Your task to perform on an android device: turn off javascript in the chrome app Image 0: 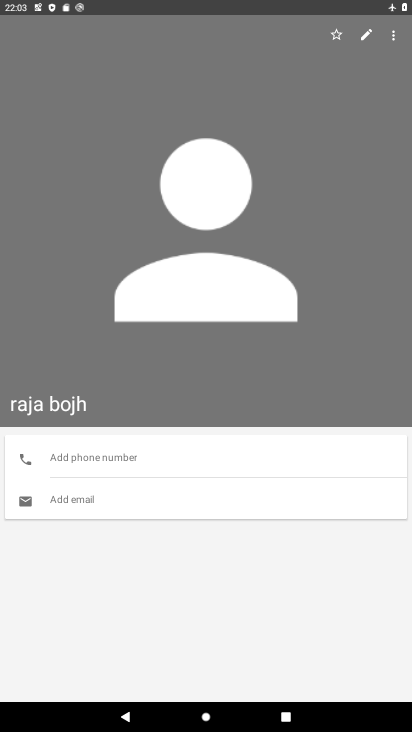
Step 0: press home button
Your task to perform on an android device: turn off javascript in the chrome app Image 1: 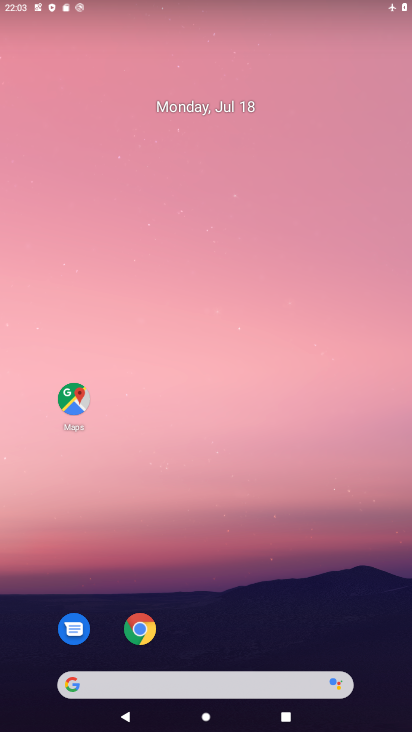
Step 1: drag from (301, 606) to (315, 86)
Your task to perform on an android device: turn off javascript in the chrome app Image 2: 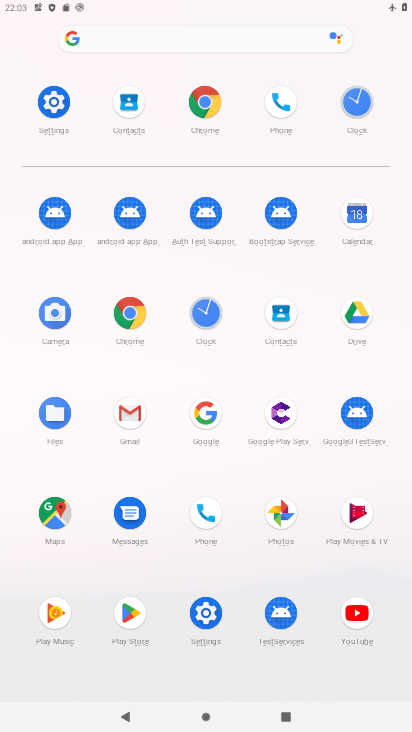
Step 2: click (205, 102)
Your task to perform on an android device: turn off javascript in the chrome app Image 3: 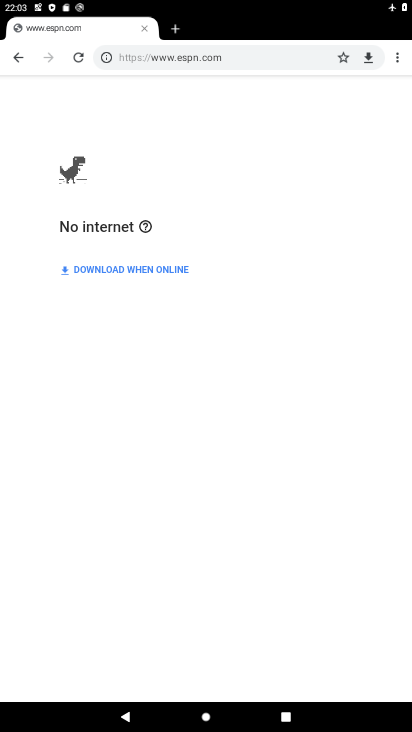
Step 3: drag from (400, 60) to (274, 396)
Your task to perform on an android device: turn off javascript in the chrome app Image 4: 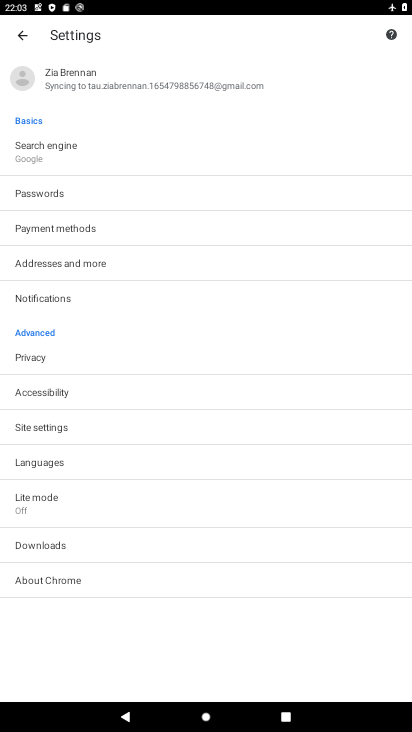
Step 4: click (104, 420)
Your task to perform on an android device: turn off javascript in the chrome app Image 5: 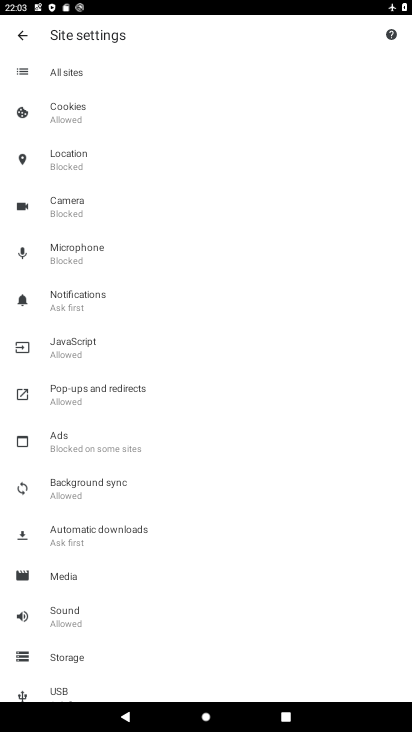
Step 5: click (64, 361)
Your task to perform on an android device: turn off javascript in the chrome app Image 6: 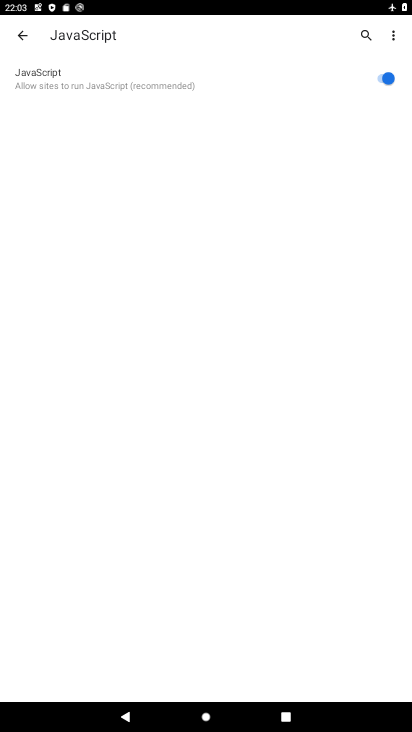
Step 6: click (399, 76)
Your task to perform on an android device: turn off javascript in the chrome app Image 7: 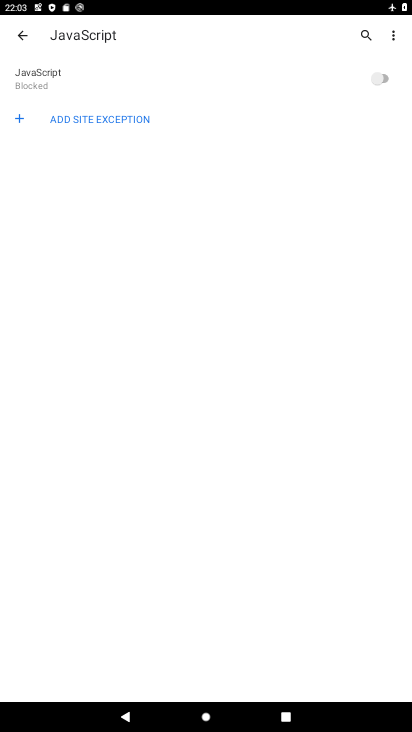
Step 7: task complete